Your task to perform on an android device: change the upload size in google photos Image 0: 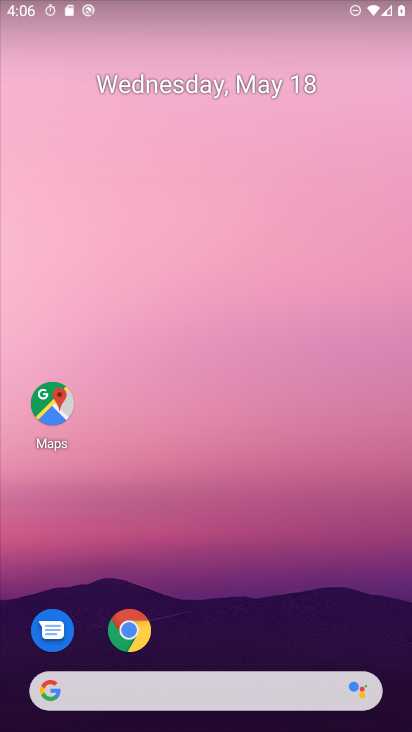
Step 0: press home button
Your task to perform on an android device: change the upload size in google photos Image 1: 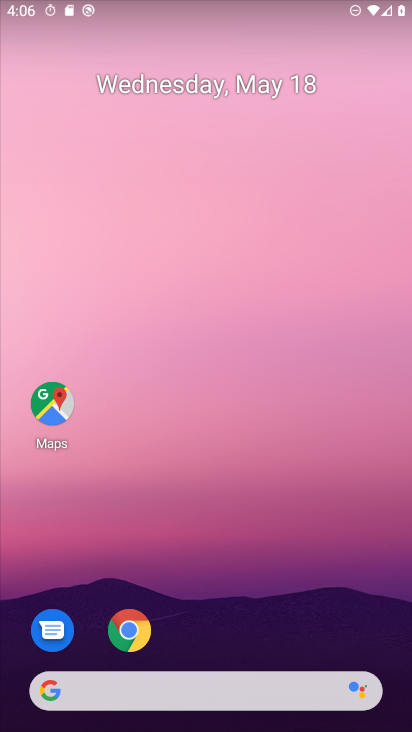
Step 1: press home button
Your task to perform on an android device: change the upload size in google photos Image 2: 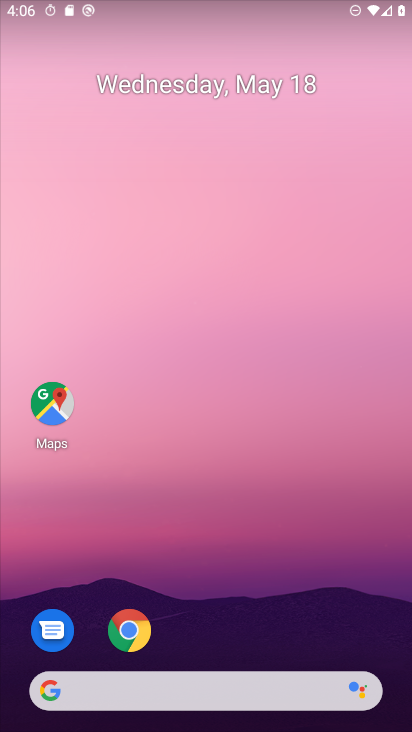
Step 2: press home button
Your task to perform on an android device: change the upload size in google photos Image 3: 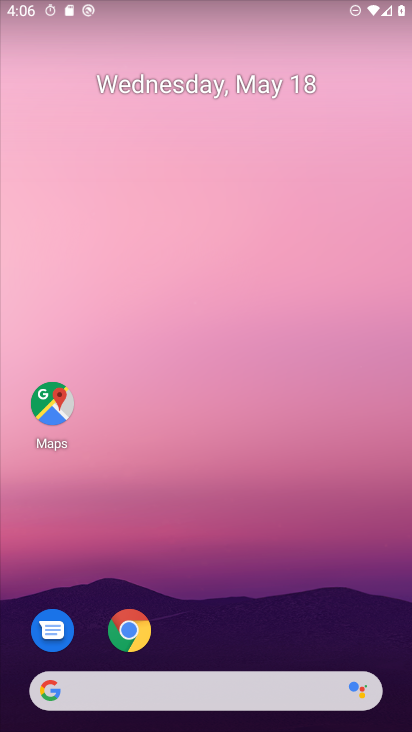
Step 3: drag from (223, 642) to (200, 296)
Your task to perform on an android device: change the upload size in google photos Image 4: 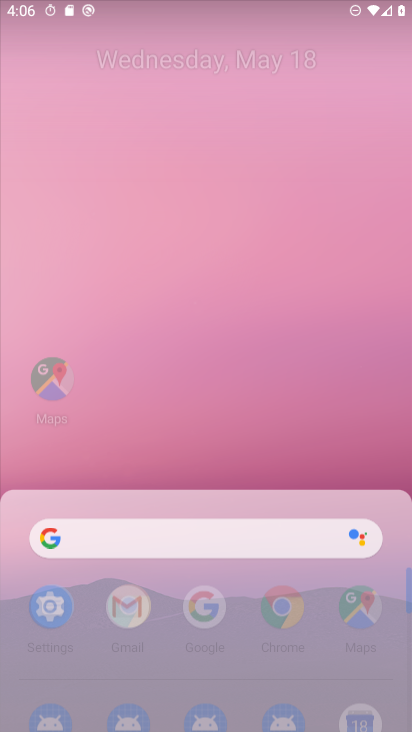
Step 4: click (200, 76)
Your task to perform on an android device: change the upload size in google photos Image 5: 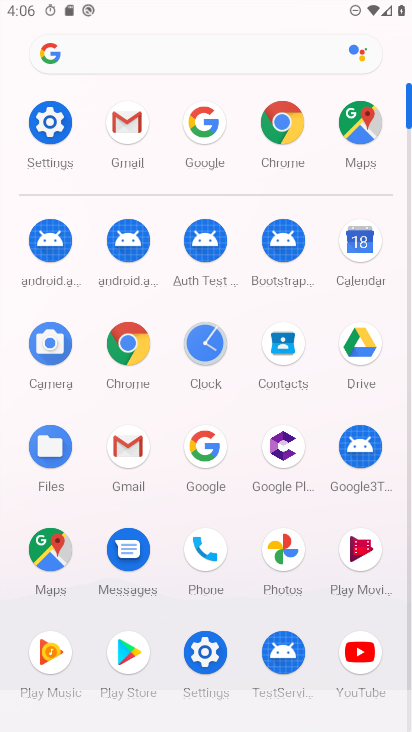
Step 5: click (354, 643)
Your task to perform on an android device: change the upload size in google photos Image 6: 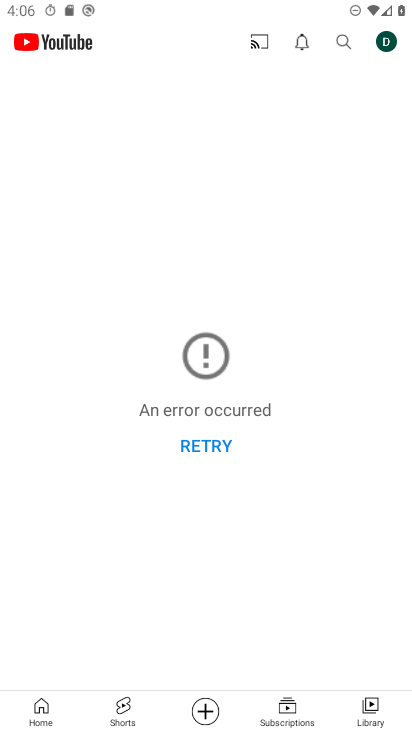
Step 6: press home button
Your task to perform on an android device: change the upload size in google photos Image 7: 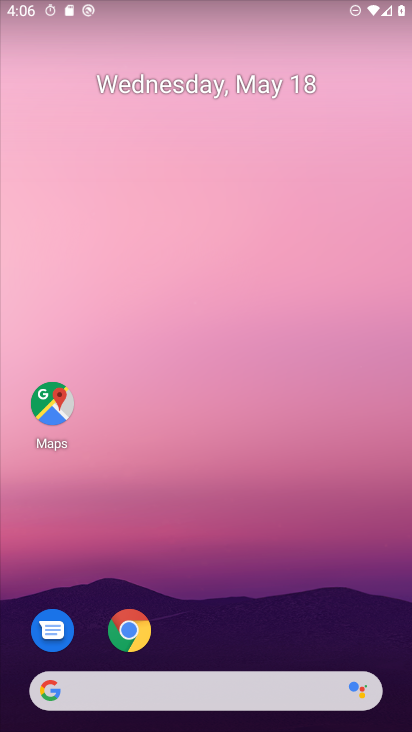
Step 7: drag from (210, 632) to (200, 61)
Your task to perform on an android device: change the upload size in google photos Image 8: 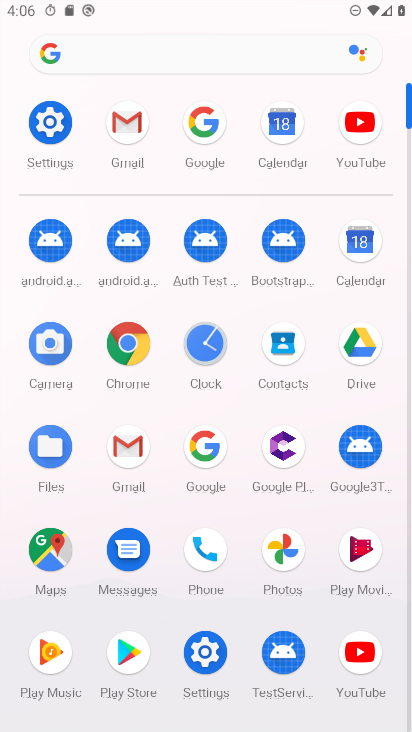
Step 8: click (279, 548)
Your task to perform on an android device: change the upload size in google photos Image 9: 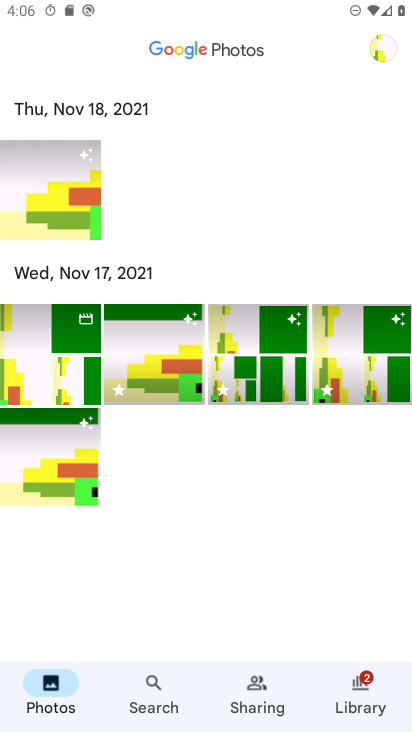
Step 9: click (379, 41)
Your task to perform on an android device: change the upload size in google photos Image 10: 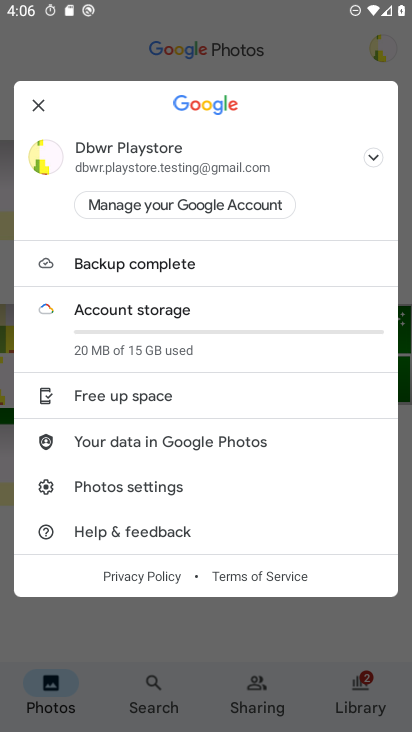
Step 10: click (146, 486)
Your task to perform on an android device: change the upload size in google photos Image 11: 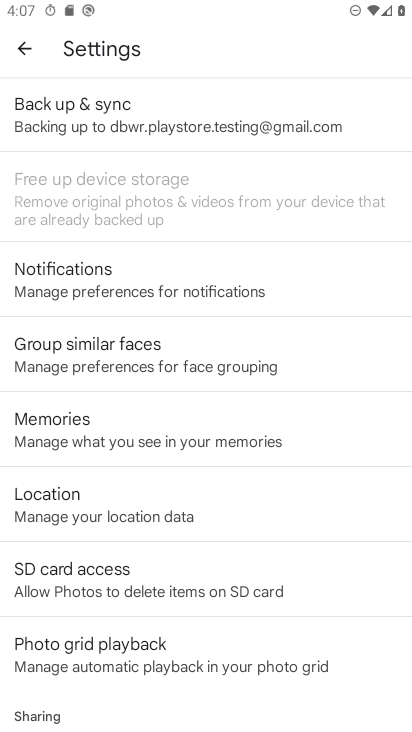
Step 11: click (150, 118)
Your task to perform on an android device: change the upload size in google photos Image 12: 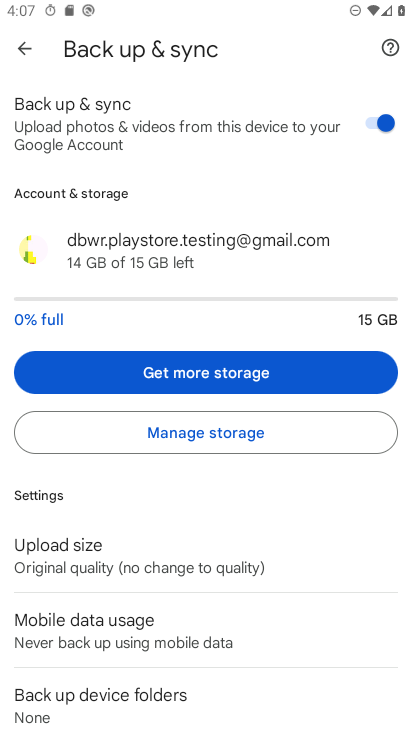
Step 12: click (120, 558)
Your task to perform on an android device: change the upload size in google photos Image 13: 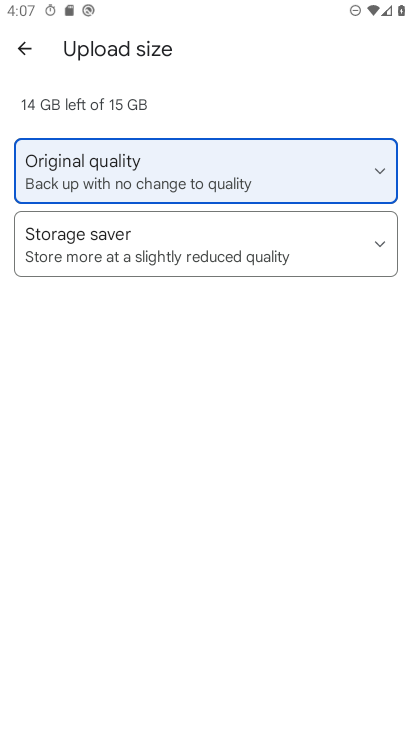
Step 13: click (213, 224)
Your task to perform on an android device: change the upload size in google photos Image 14: 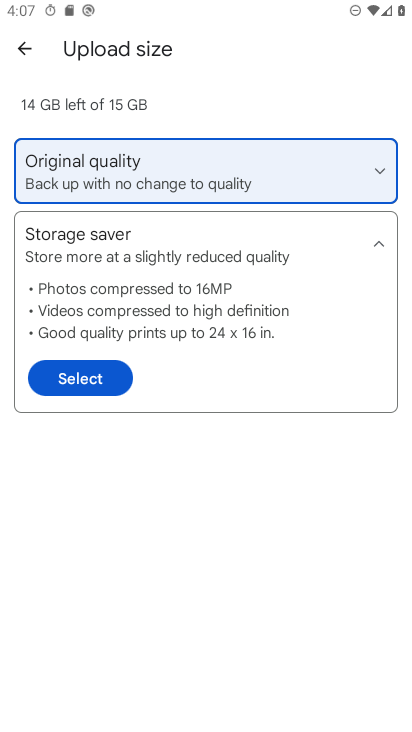
Step 14: click (79, 382)
Your task to perform on an android device: change the upload size in google photos Image 15: 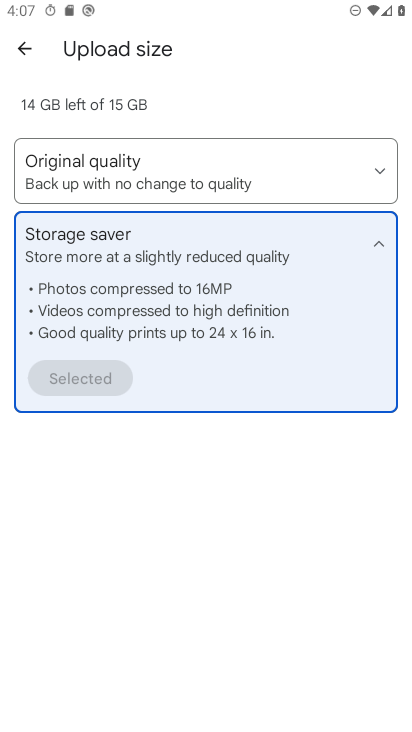
Step 15: task complete